Your task to perform on an android device: Turn off the flashlight Image 0: 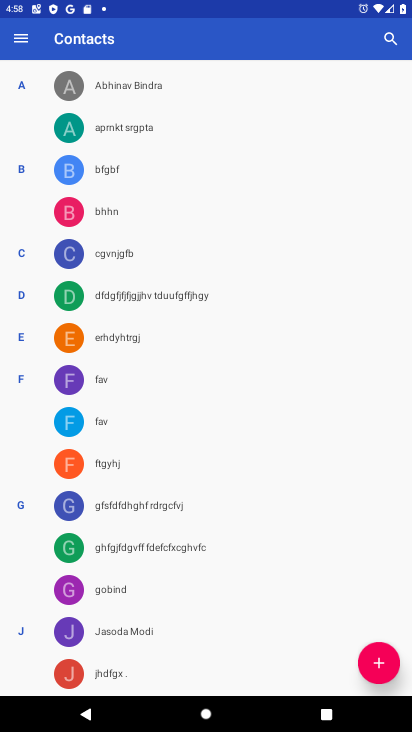
Step 0: press home button
Your task to perform on an android device: Turn off the flashlight Image 1: 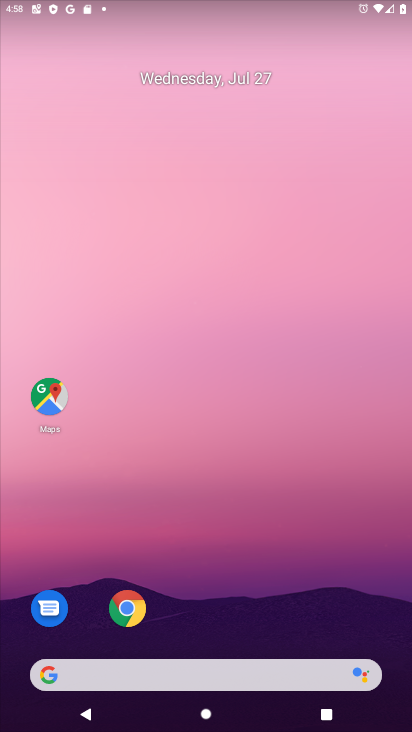
Step 1: drag from (241, 653) to (280, 15)
Your task to perform on an android device: Turn off the flashlight Image 2: 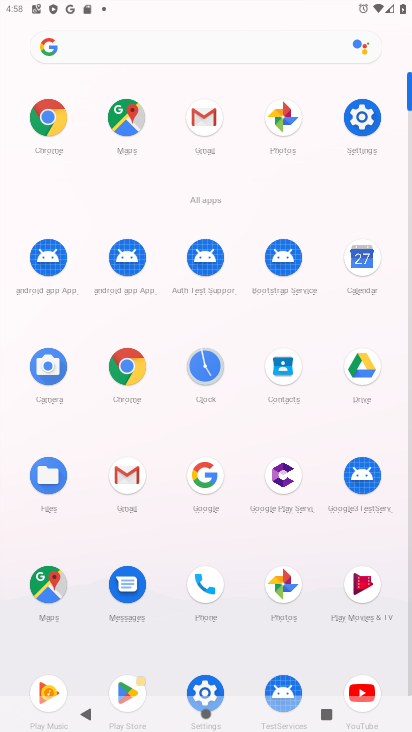
Step 2: click (345, 105)
Your task to perform on an android device: Turn off the flashlight Image 3: 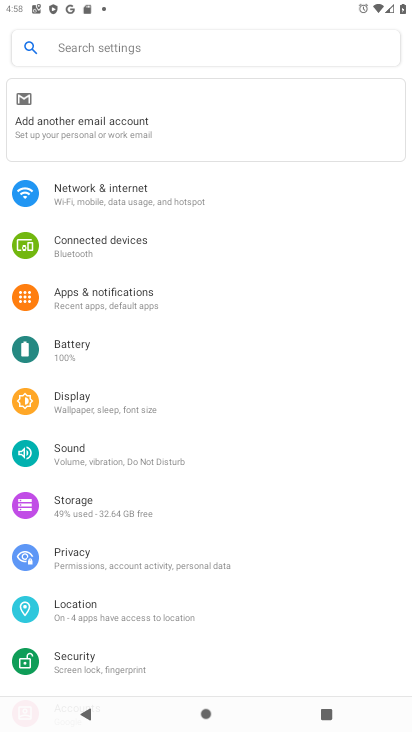
Step 3: task complete